Your task to perform on an android device: turn on priority inbox in the gmail app Image 0: 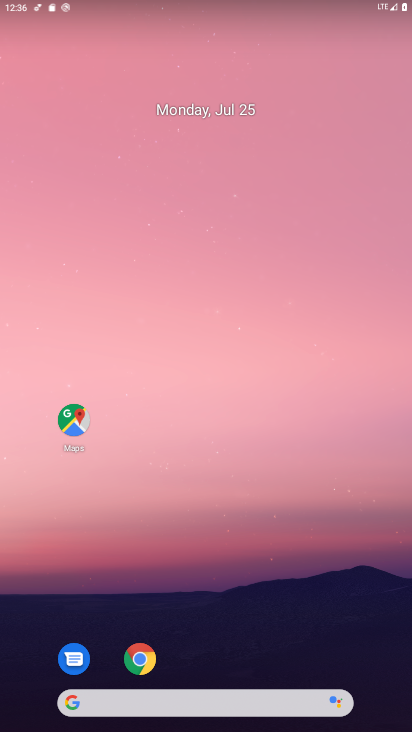
Step 0: press home button
Your task to perform on an android device: turn on priority inbox in the gmail app Image 1: 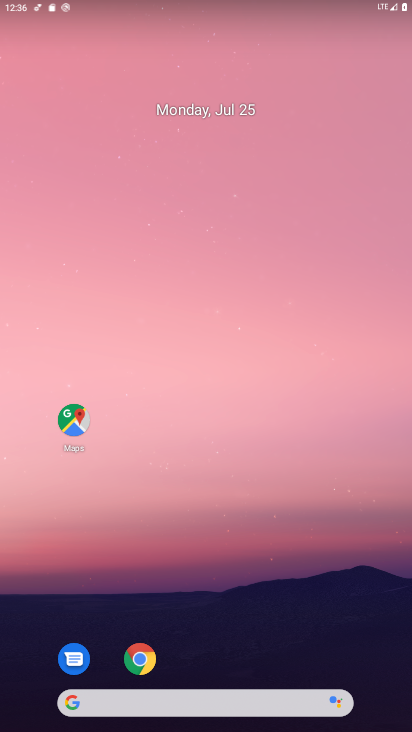
Step 1: drag from (226, 660) to (259, 5)
Your task to perform on an android device: turn on priority inbox in the gmail app Image 2: 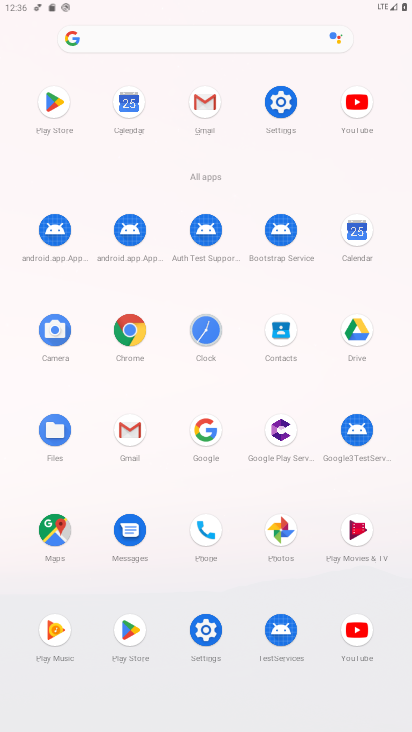
Step 2: click (203, 101)
Your task to perform on an android device: turn on priority inbox in the gmail app Image 3: 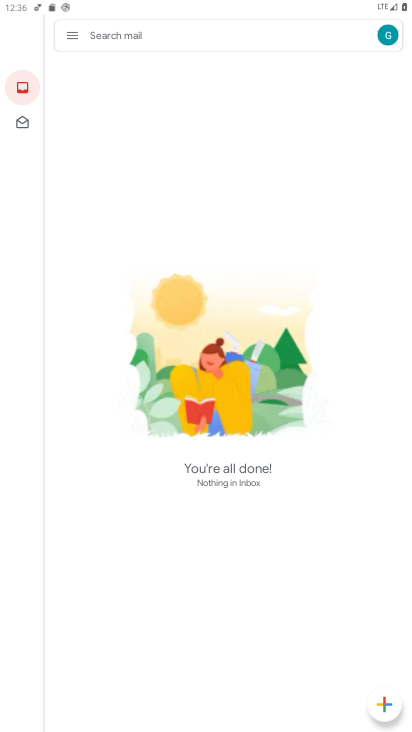
Step 3: click (69, 33)
Your task to perform on an android device: turn on priority inbox in the gmail app Image 4: 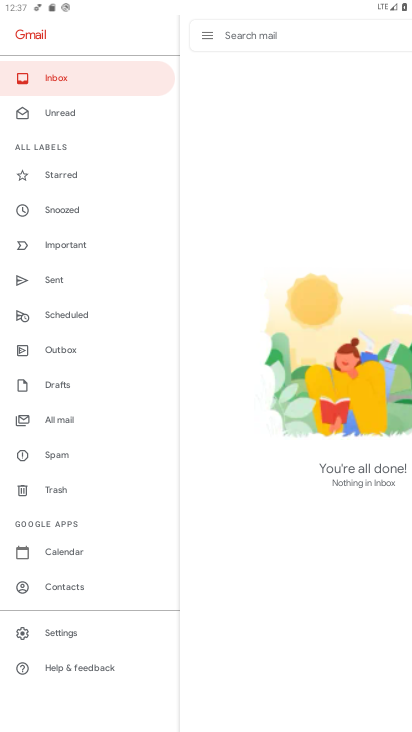
Step 4: click (79, 629)
Your task to perform on an android device: turn on priority inbox in the gmail app Image 5: 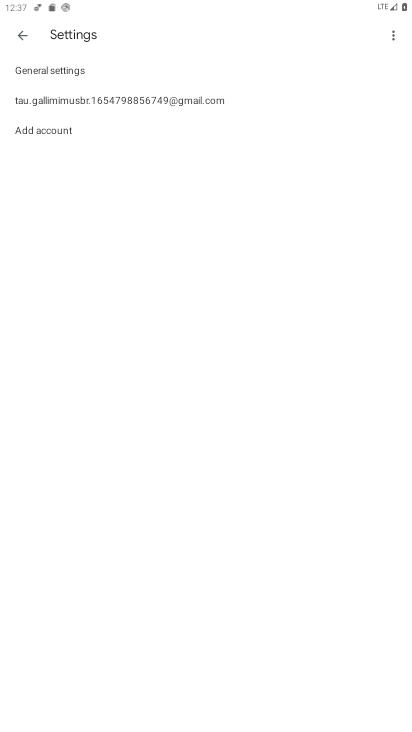
Step 5: click (139, 98)
Your task to perform on an android device: turn on priority inbox in the gmail app Image 6: 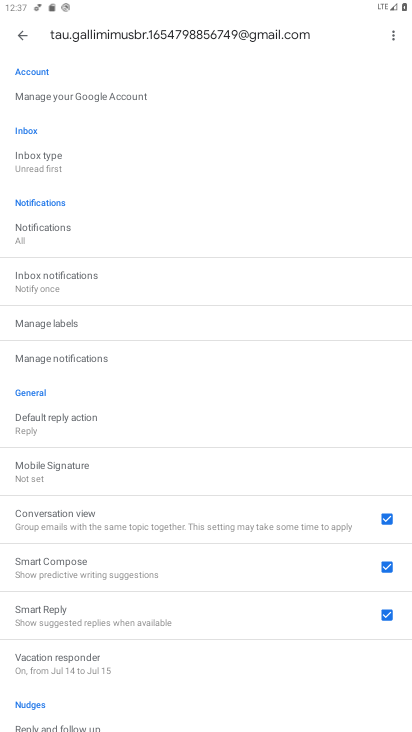
Step 6: click (80, 158)
Your task to perform on an android device: turn on priority inbox in the gmail app Image 7: 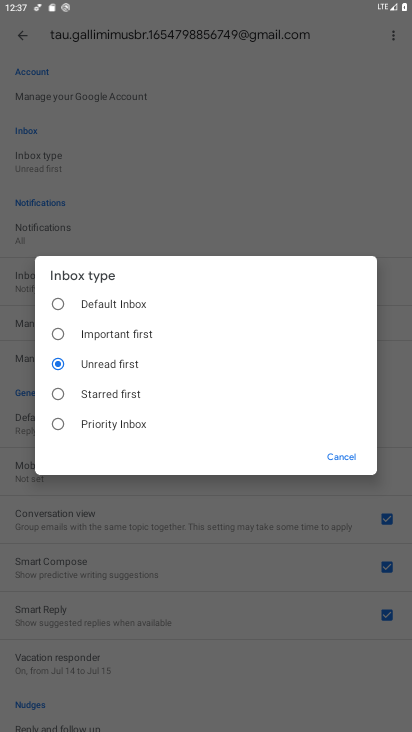
Step 7: click (52, 420)
Your task to perform on an android device: turn on priority inbox in the gmail app Image 8: 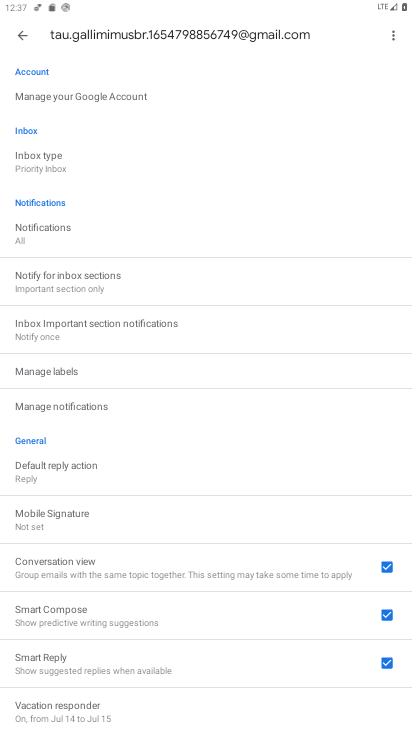
Step 8: task complete